Your task to perform on an android device: Search for "sony triple a" on costco.com, select the first entry, add it to the cart, then select checkout. Image 0: 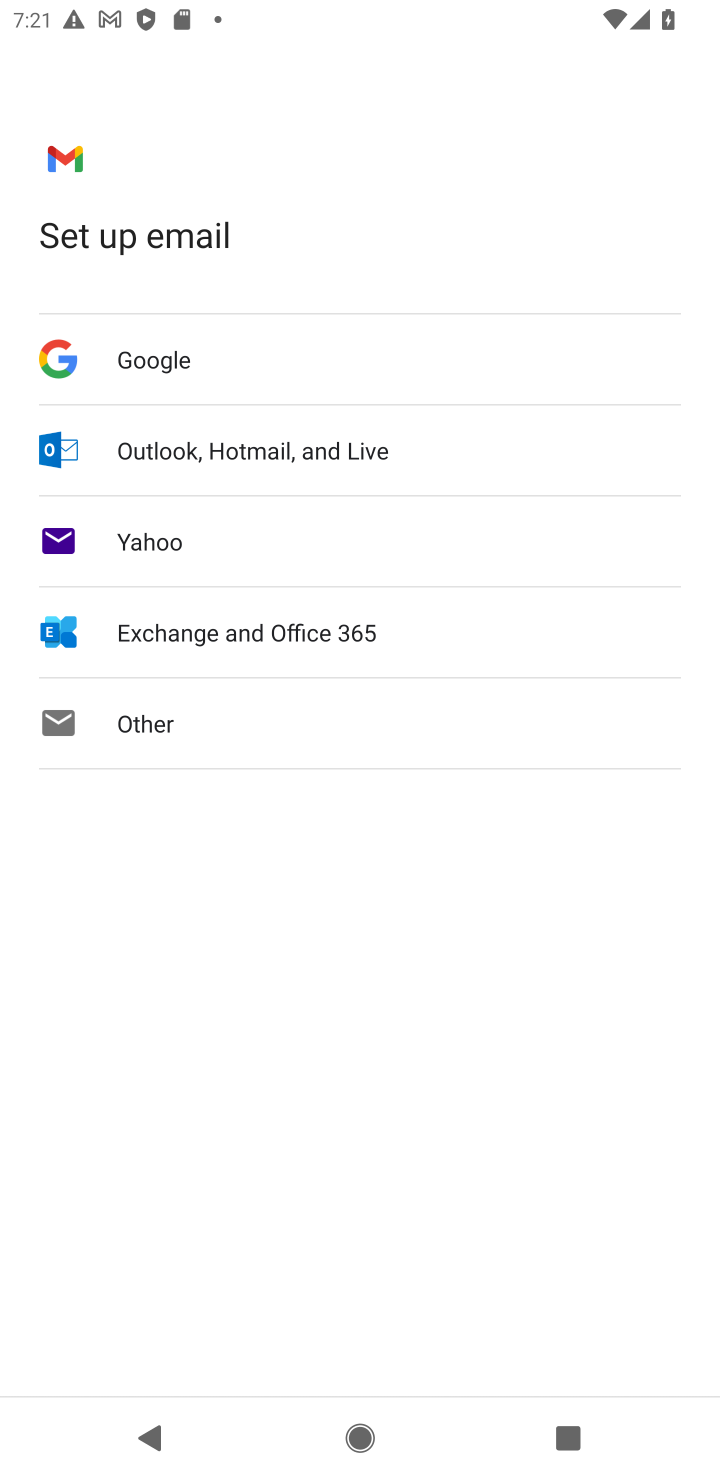
Step 0: press home button
Your task to perform on an android device: Search for "sony triple a" on costco.com, select the first entry, add it to the cart, then select checkout. Image 1: 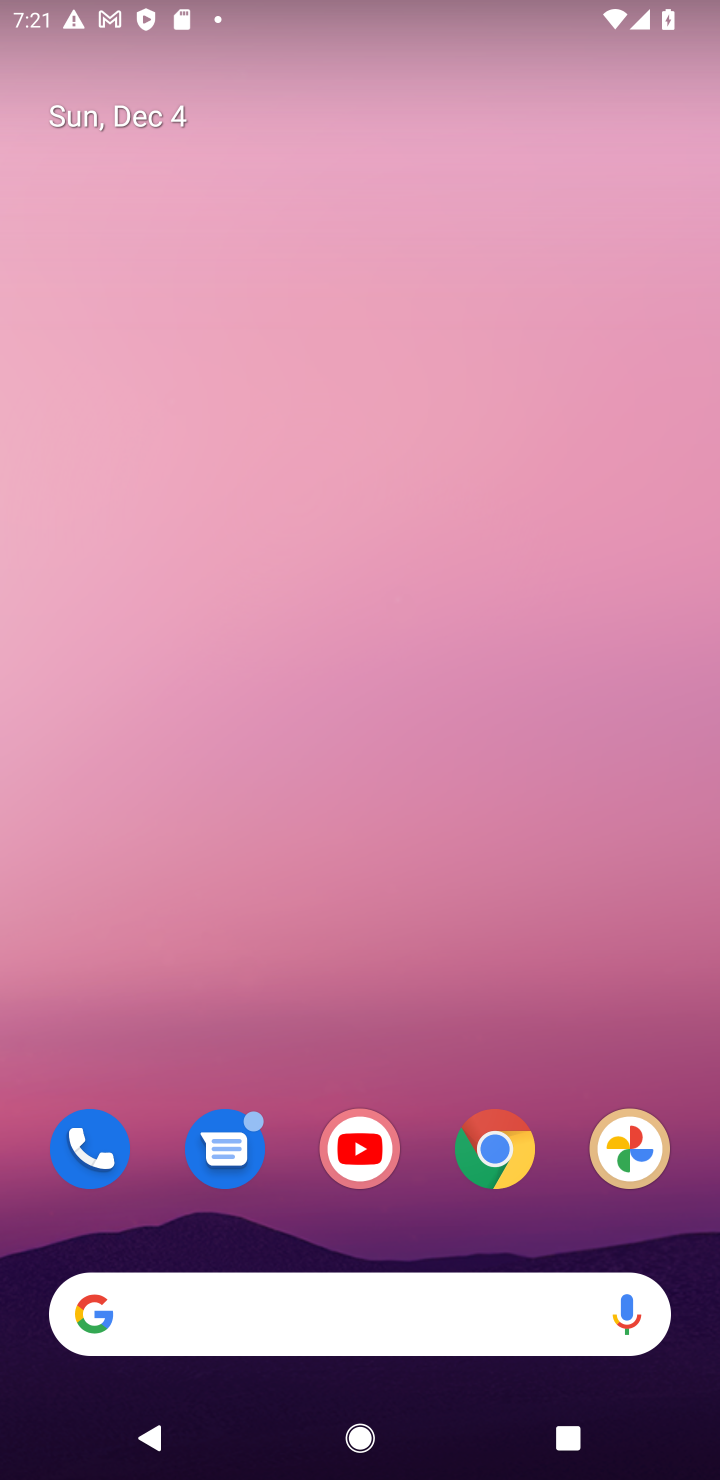
Step 1: drag from (242, 1025) to (239, 493)
Your task to perform on an android device: Search for "sony triple a" on costco.com, select the first entry, add it to the cart, then select checkout. Image 2: 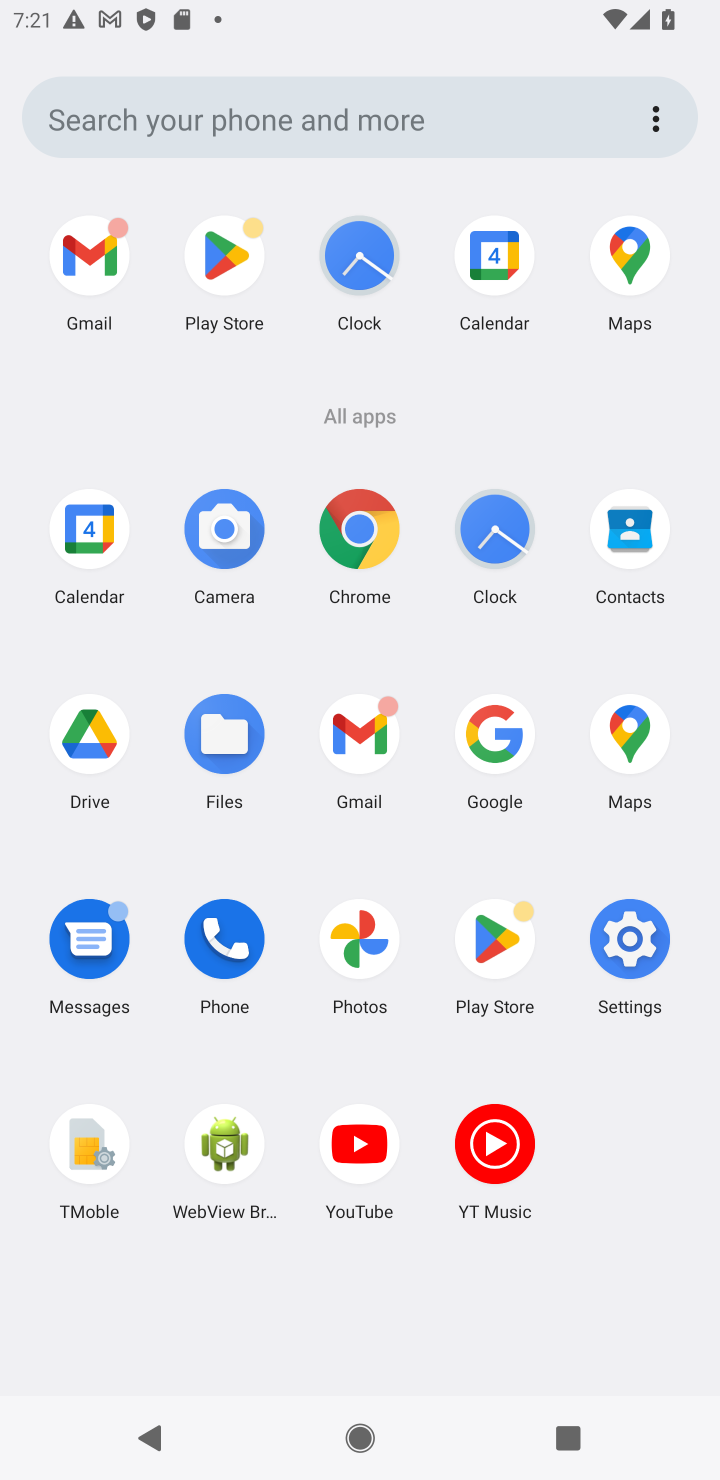
Step 2: click (490, 744)
Your task to perform on an android device: Search for "sony triple a" on costco.com, select the first entry, add it to the cart, then select checkout. Image 3: 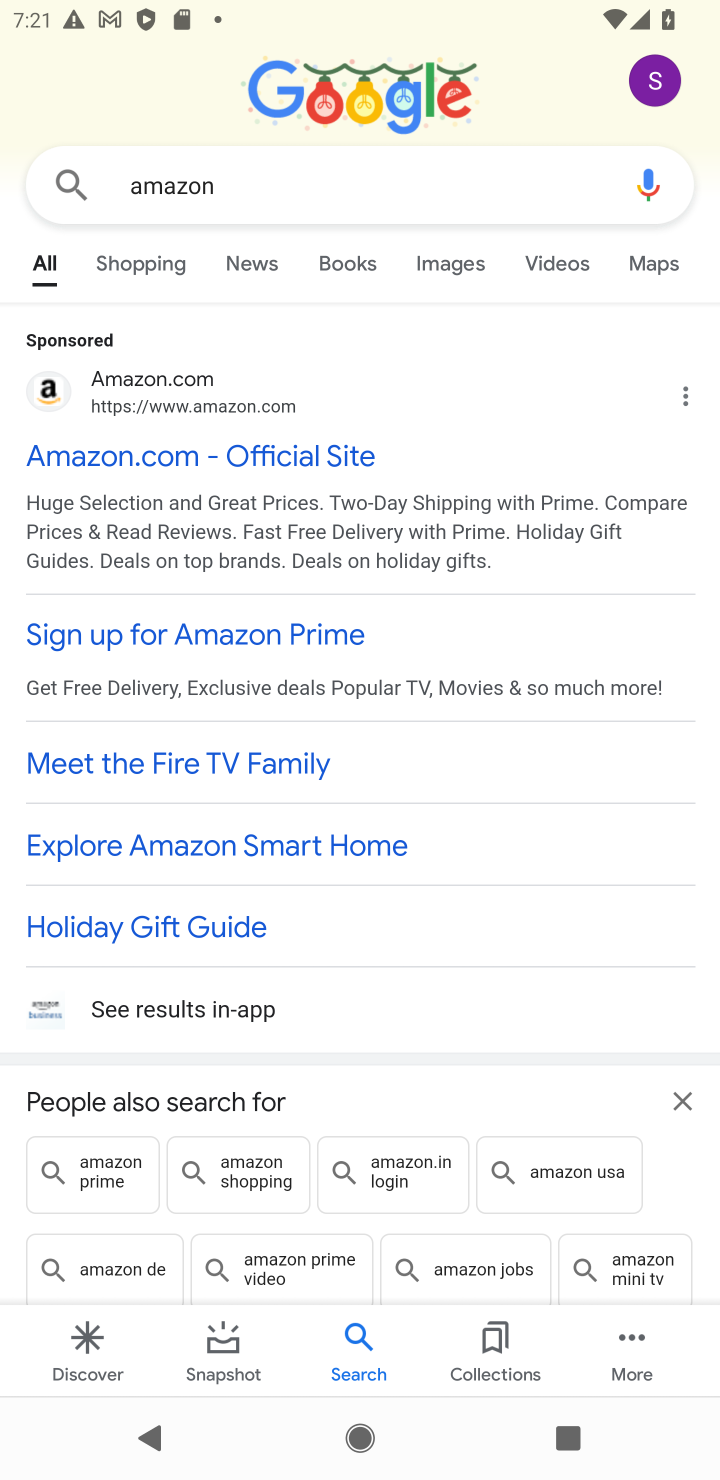
Step 3: click (192, 188)
Your task to perform on an android device: Search for "sony triple a" on costco.com, select the first entry, add it to the cart, then select checkout. Image 4: 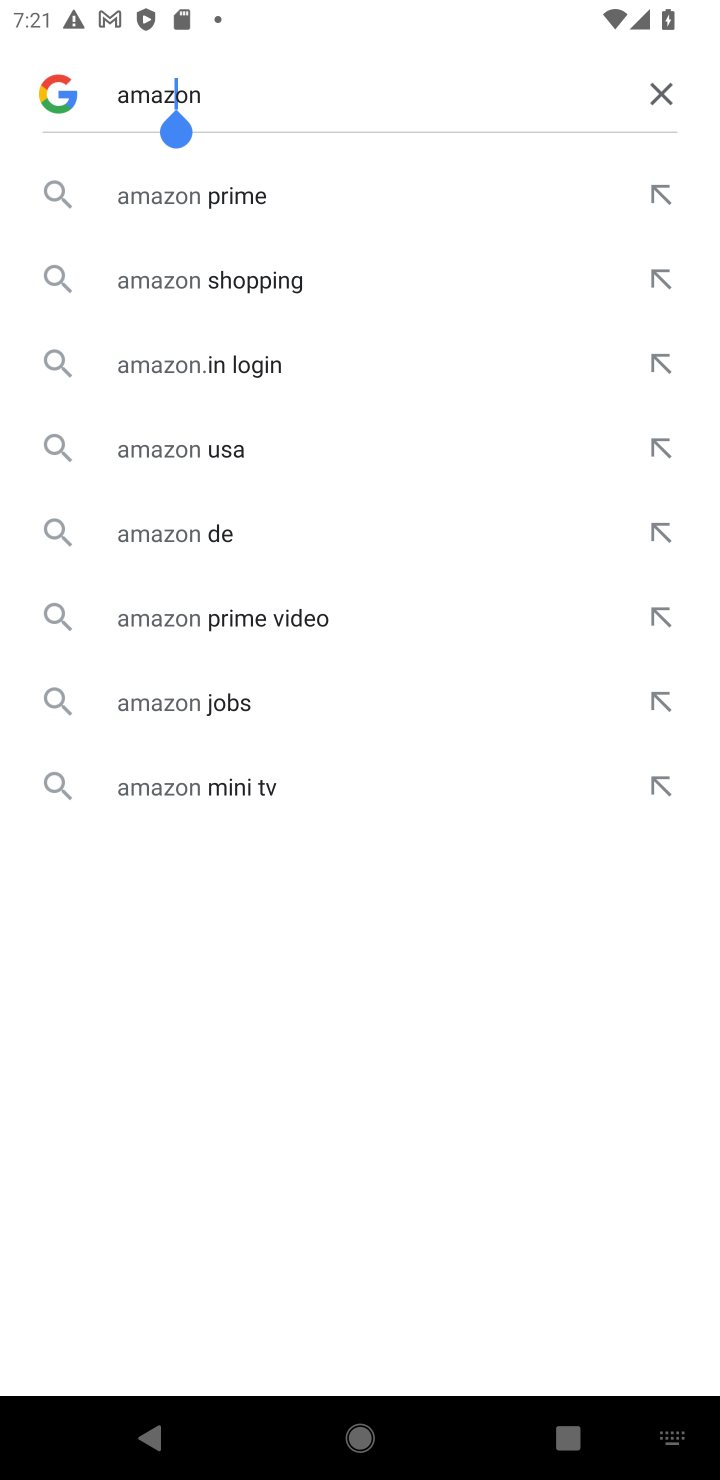
Step 4: click (676, 100)
Your task to perform on an android device: Search for "sony triple a" on costco.com, select the first entry, add it to the cart, then select checkout. Image 5: 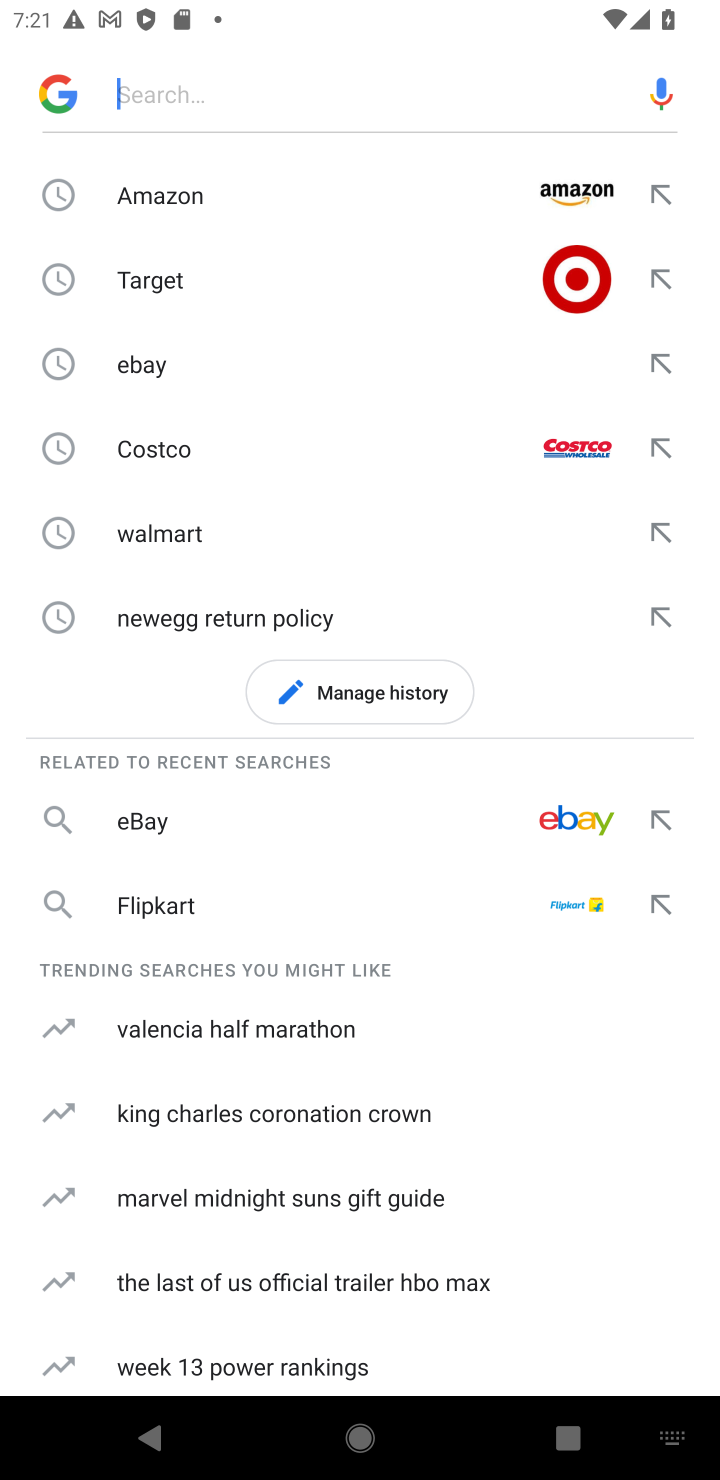
Step 5: click (148, 440)
Your task to perform on an android device: Search for "sony triple a" on costco.com, select the first entry, add it to the cart, then select checkout. Image 6: 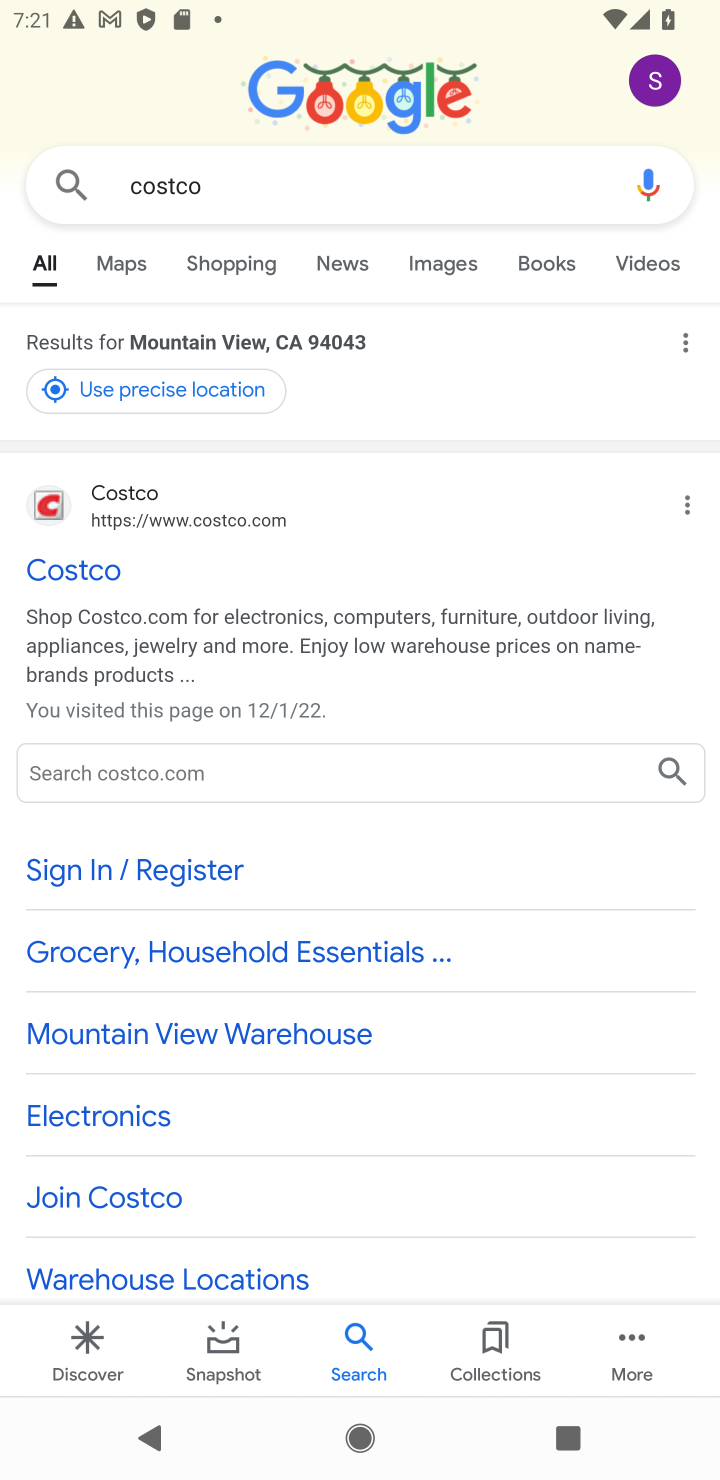
Step 6: click (220, 176)
Your task to perform on an android device: Search for "sony triple a" on costco.com, select the first entry, add it to the cart, then select checkout. Image 7: 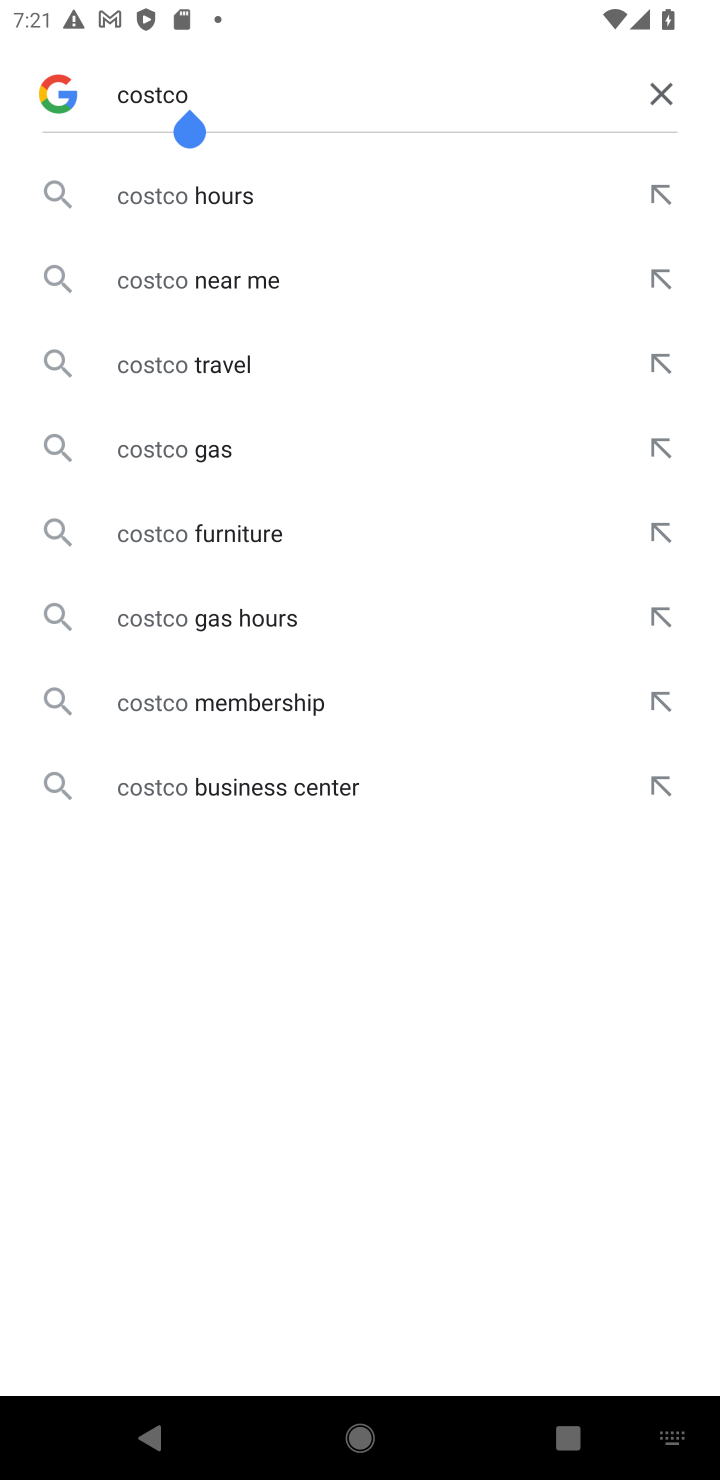
Step 7: click (651, 96)
Your task to perform on an android device: Search for "sony triple a" on costco.com, select the first entry, add it to the cart, then select checkout. Image 8: 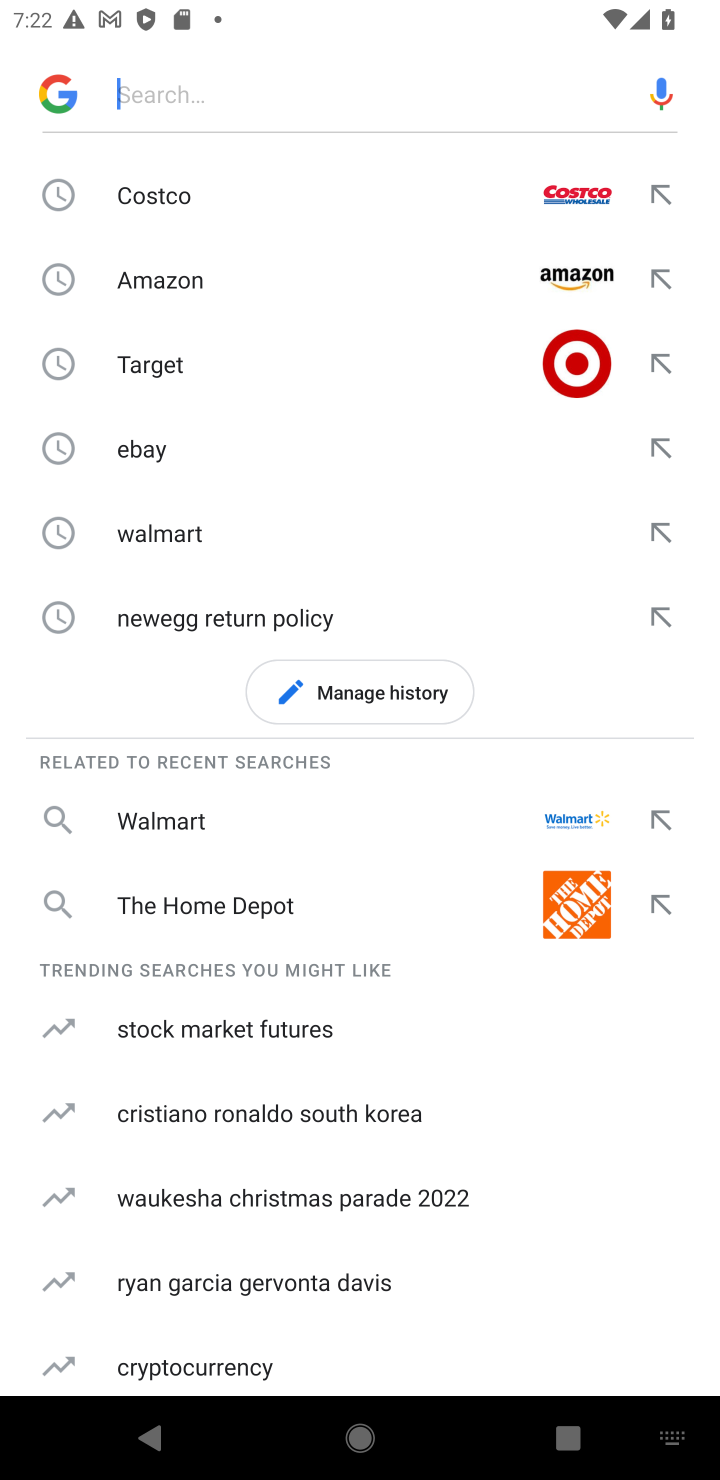
Step 8: click (158, 193)
Your task to perform on an android device: Search for "sony triple a" on costco.com, select the first entry, add it to the cart, then select checkout. Image 9: 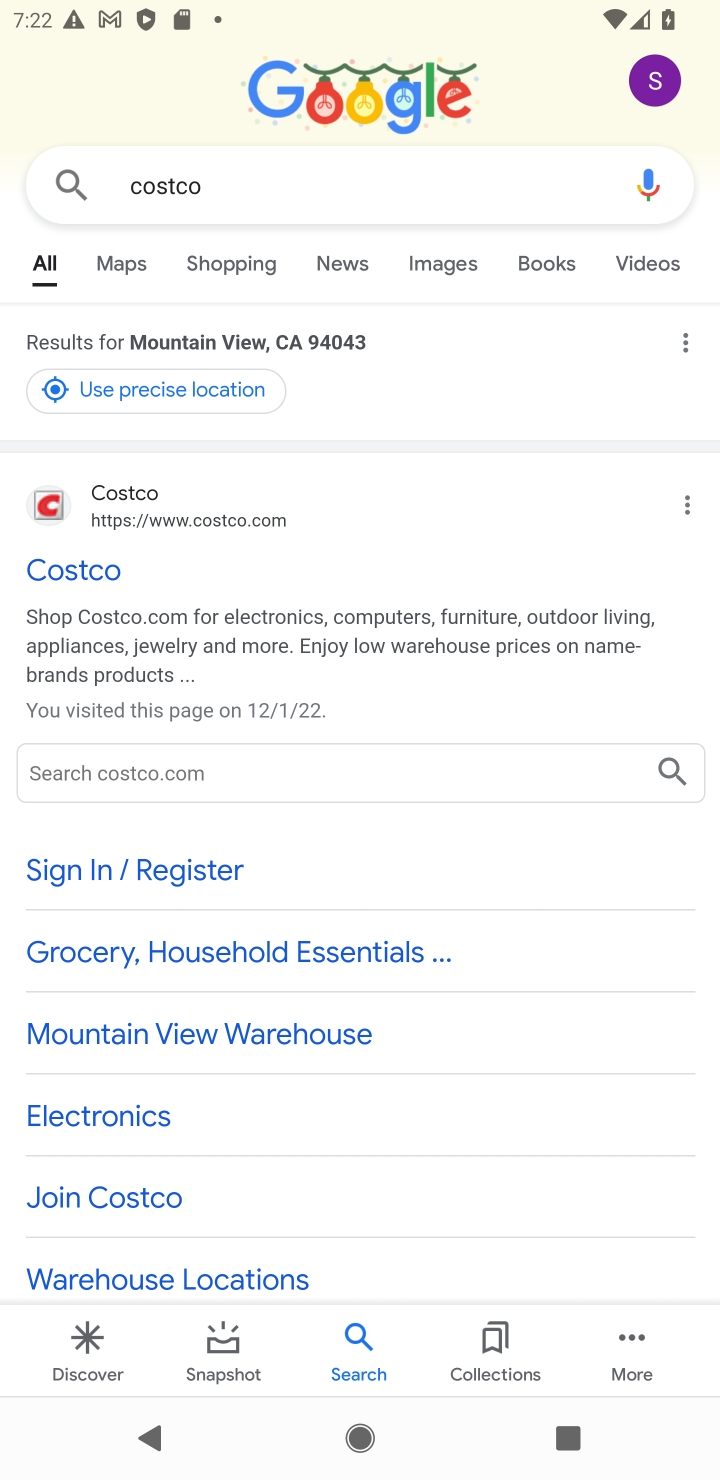
Step 9: click (100, 572)
Your task to perform on an android device: Search for "sony triple a" on costco.com, select the first entry, add it to the cart, then select checkout. Image 10: 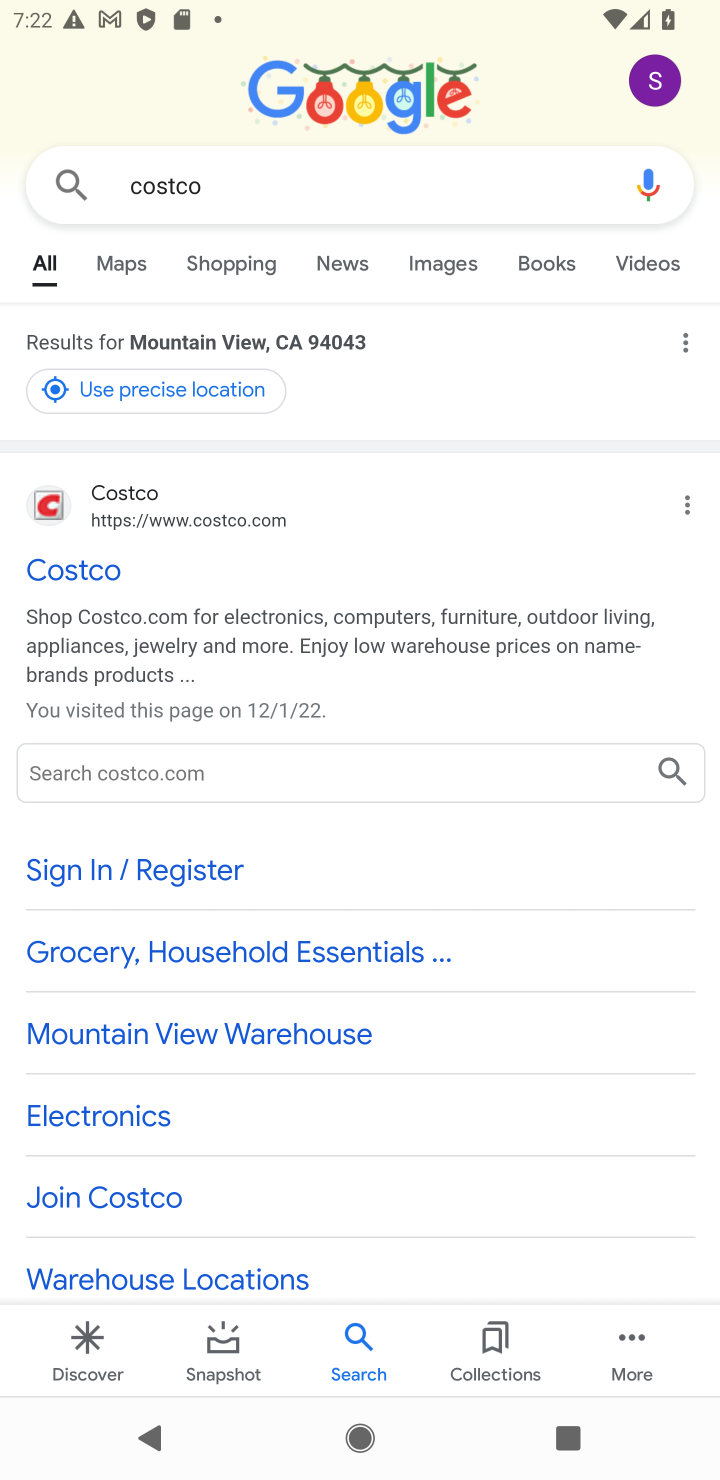
Step 10: click (73, 562)
Your task to perform on an android device: Search for "sony triple a" on costco.com, select the first entry, add it to the cart, then select checkout. Image 11: 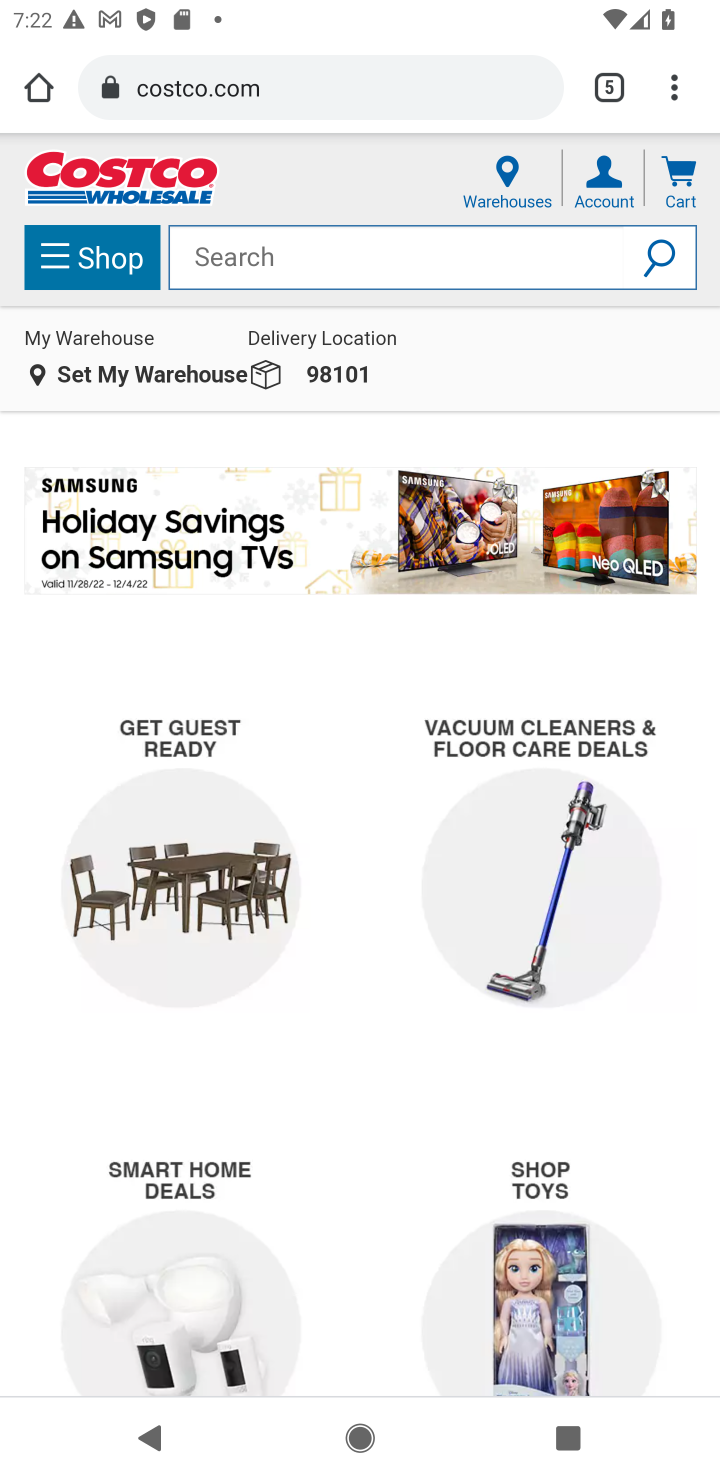
Step 11: click (211, 244)
Your task to perform on an android device: Search for "sony triple a" on costco.com, select the first entry, add it to the cart, then select checkout. Image 12: 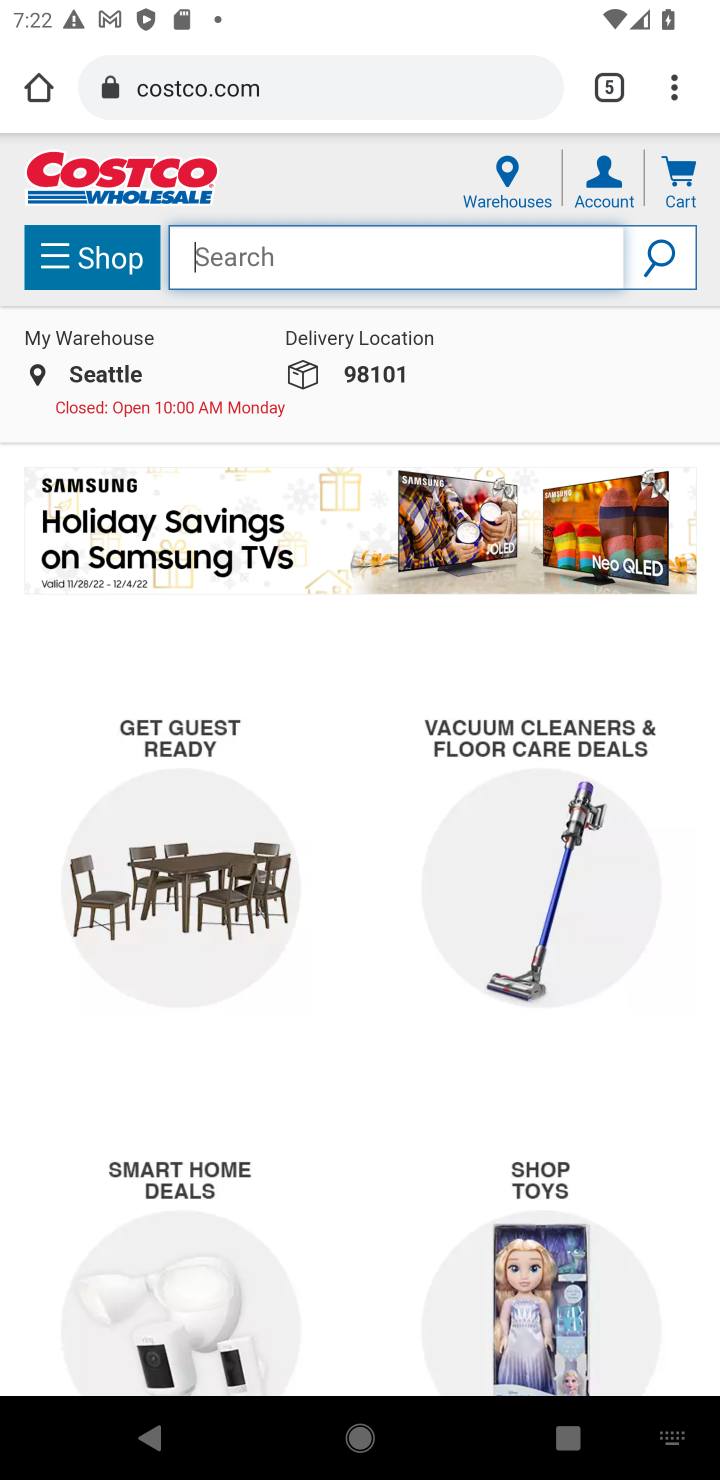
Step 12: type "sony triple a"
Your task to perform on an android device: Search for "sony triple a" on costco.com, select the first entry, add it to the cart, then select checkout. Image 13: 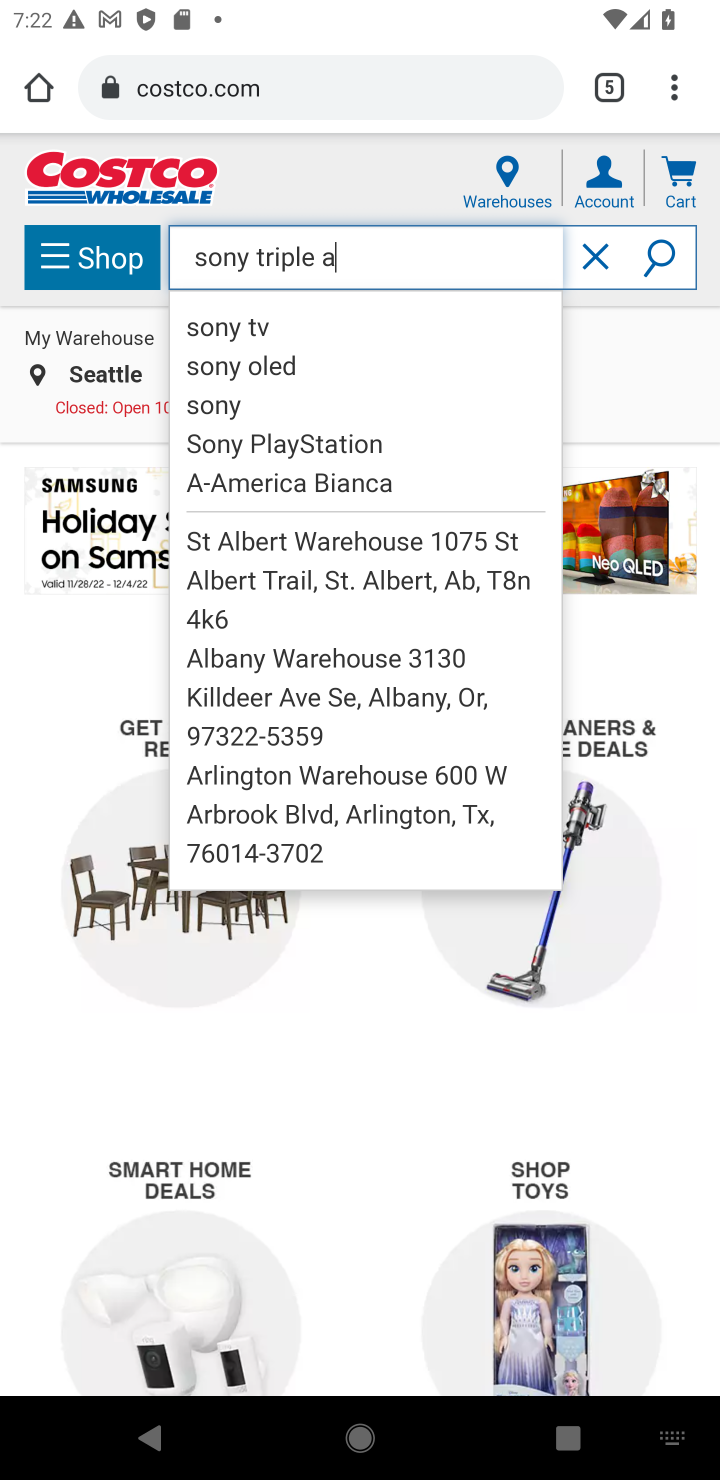
Step 13: click (646, 248)
Your task to perform on an android device: Search for "sony triple a" on costco.com, select the first entry, add it to the cart, then select checkout. Image 14: 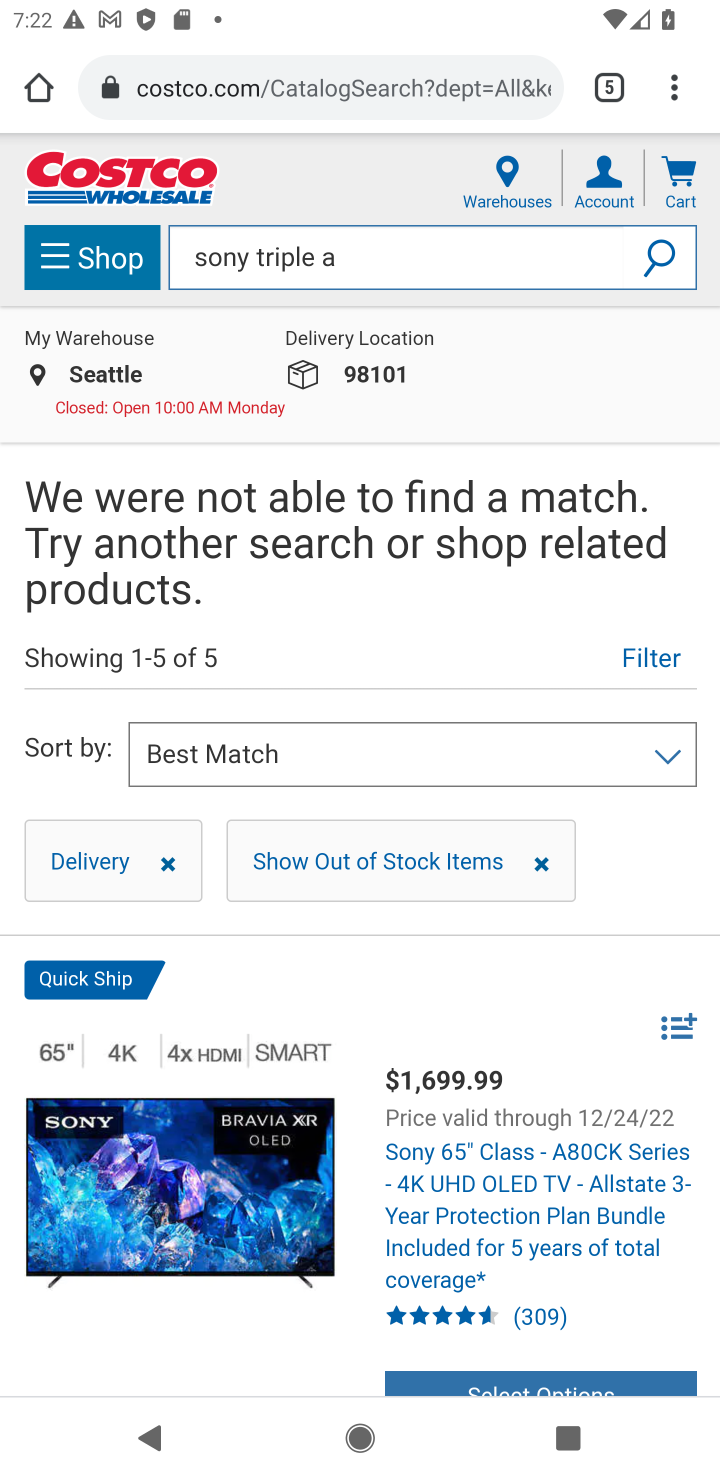
Step 14: drag from (485, 1273) to (487, 695)
Your task to perform on an android device: Search for "sony triple a" on costco.com, select the first entry, add it to the cart, then select checkout. Image 15: 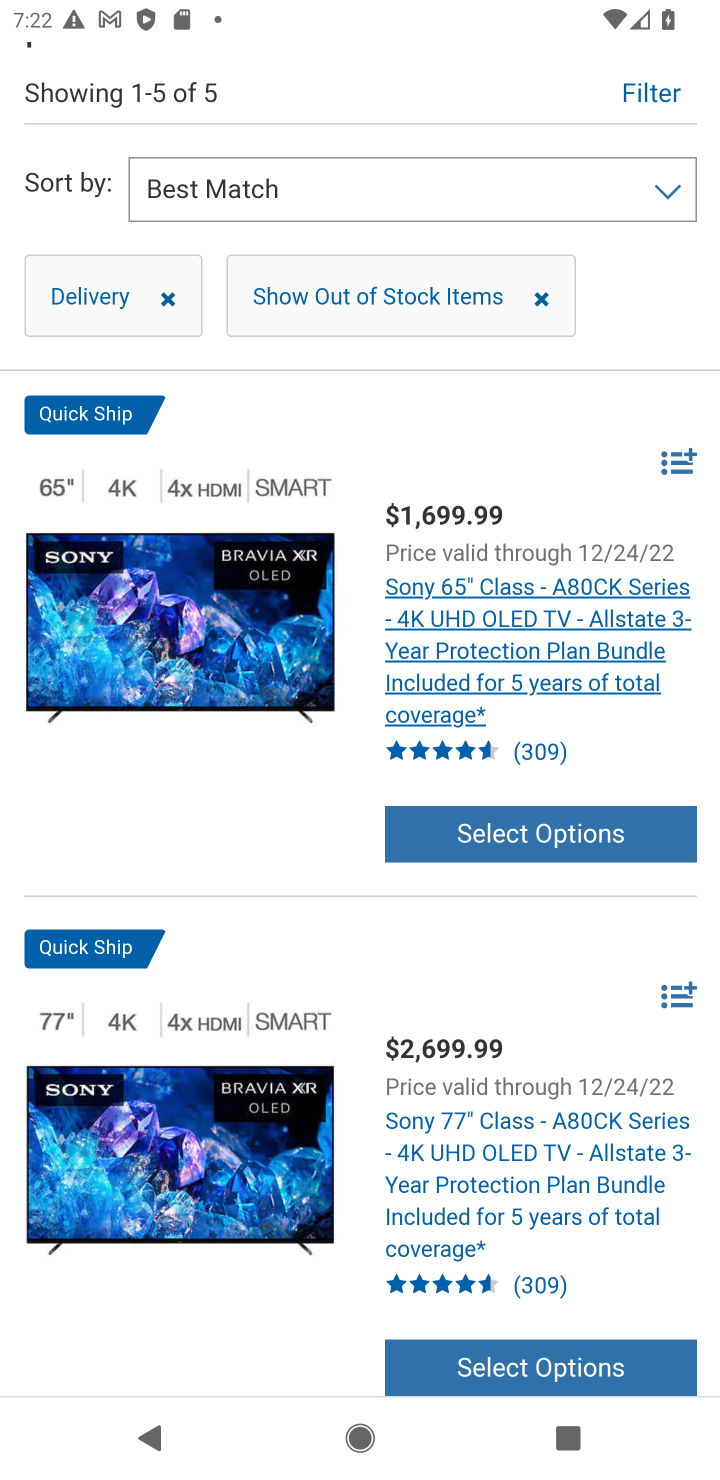
Step 15: click (482, 832)
Your task to perform on an android device: Search for "sony triple a" on costco.com, select the first entry, add it to the cart, then select checkout. Image 16: 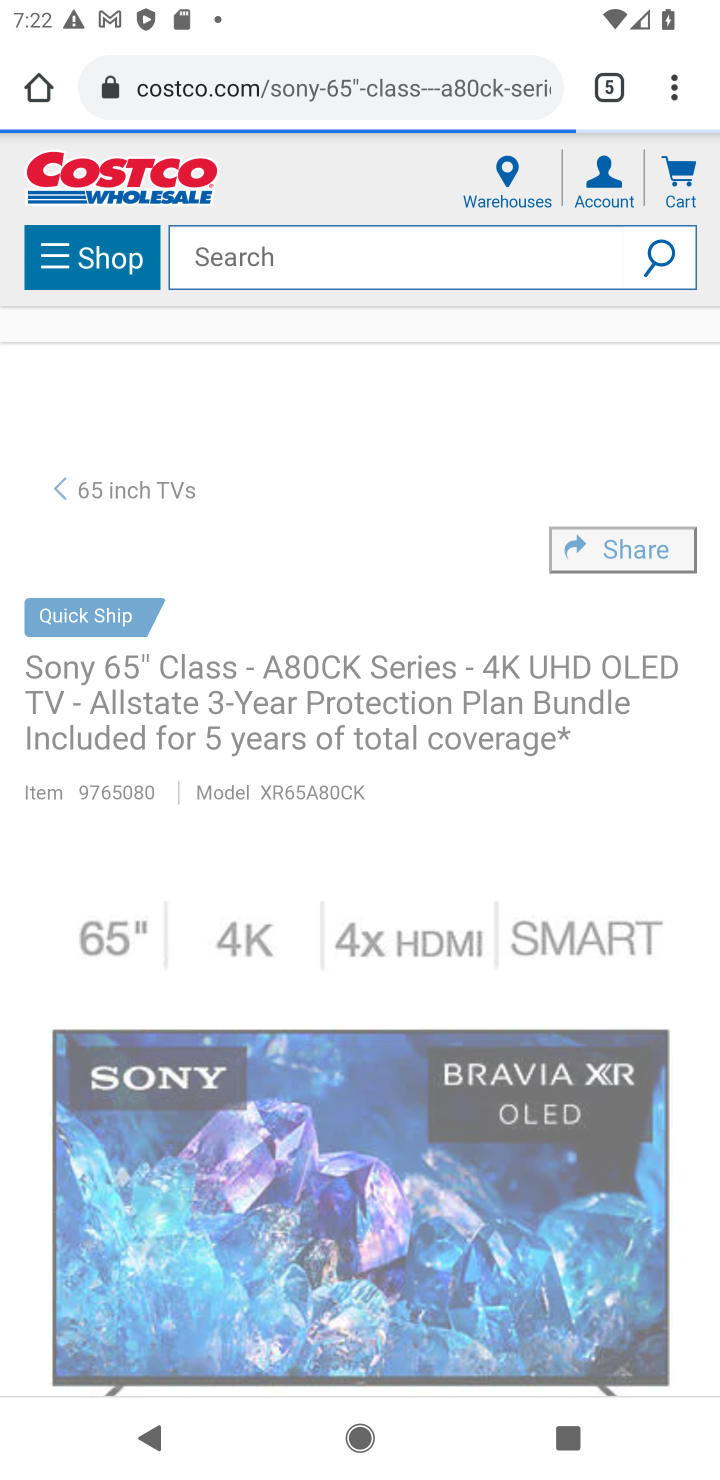
Step 16: drag from (381, 1296) to (349, 651)
Your task to perform on an android device: Search for "sony triple a" on costco.com, select the first entry, add it to the cart, then select checkout. Image 17: 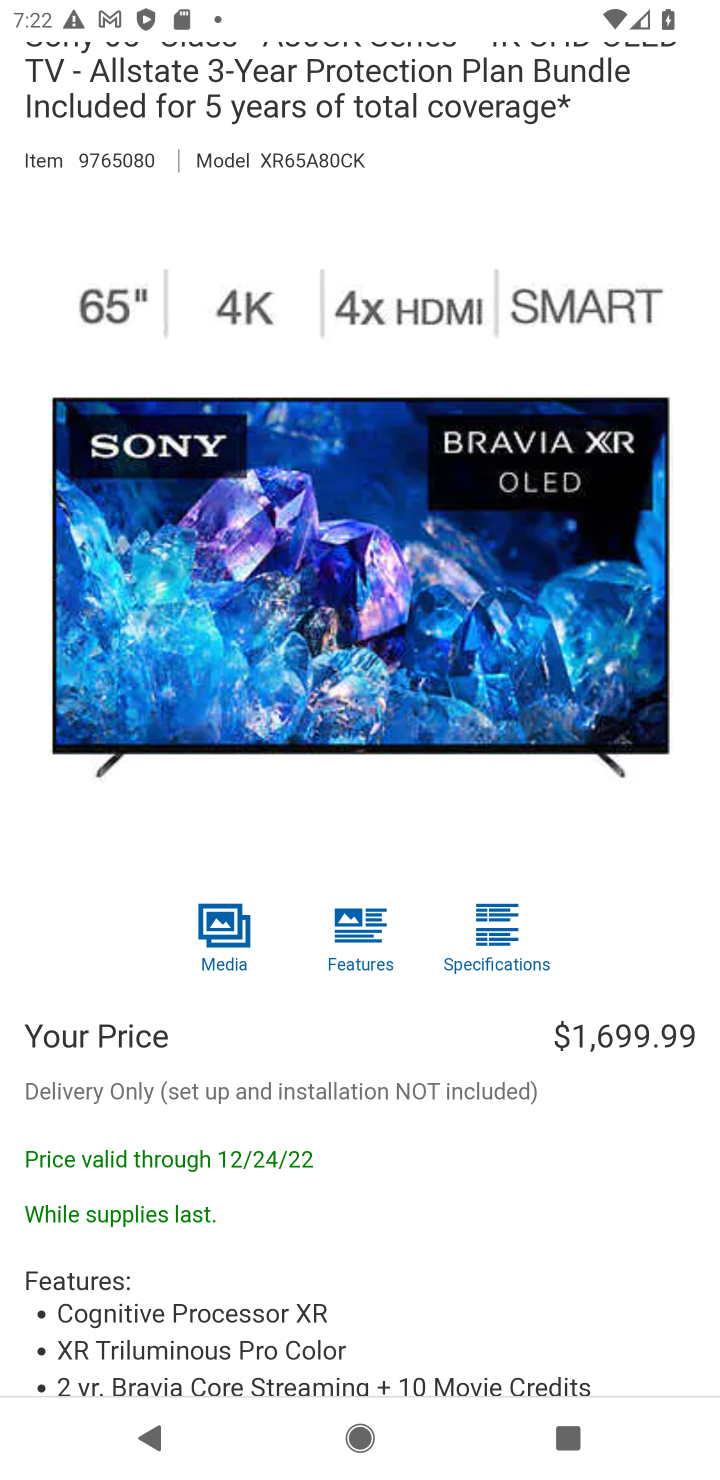
Step 17: drag from (355, 910) to (365, 415)
Your task to perform on an android device: Search for "sony triple a" on costco.com, select the first entry, add it to the cart, then select checkout. Image 18: 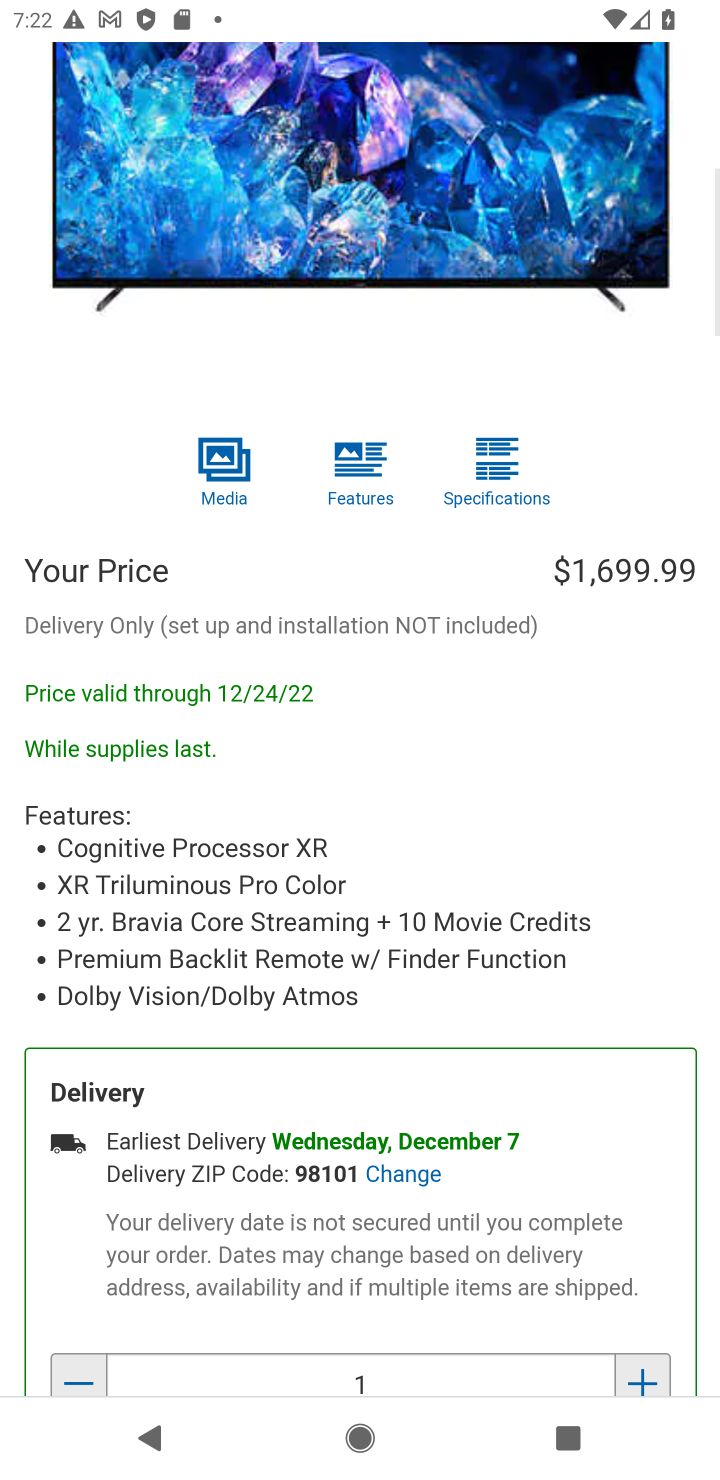
Step 18: drag from (295, 1073) to (349, 515)
Your task to perform on an android device: Search for "sony triple a" on costco.com, select the first entry, add it to the cart, then select checkout. Image 19: 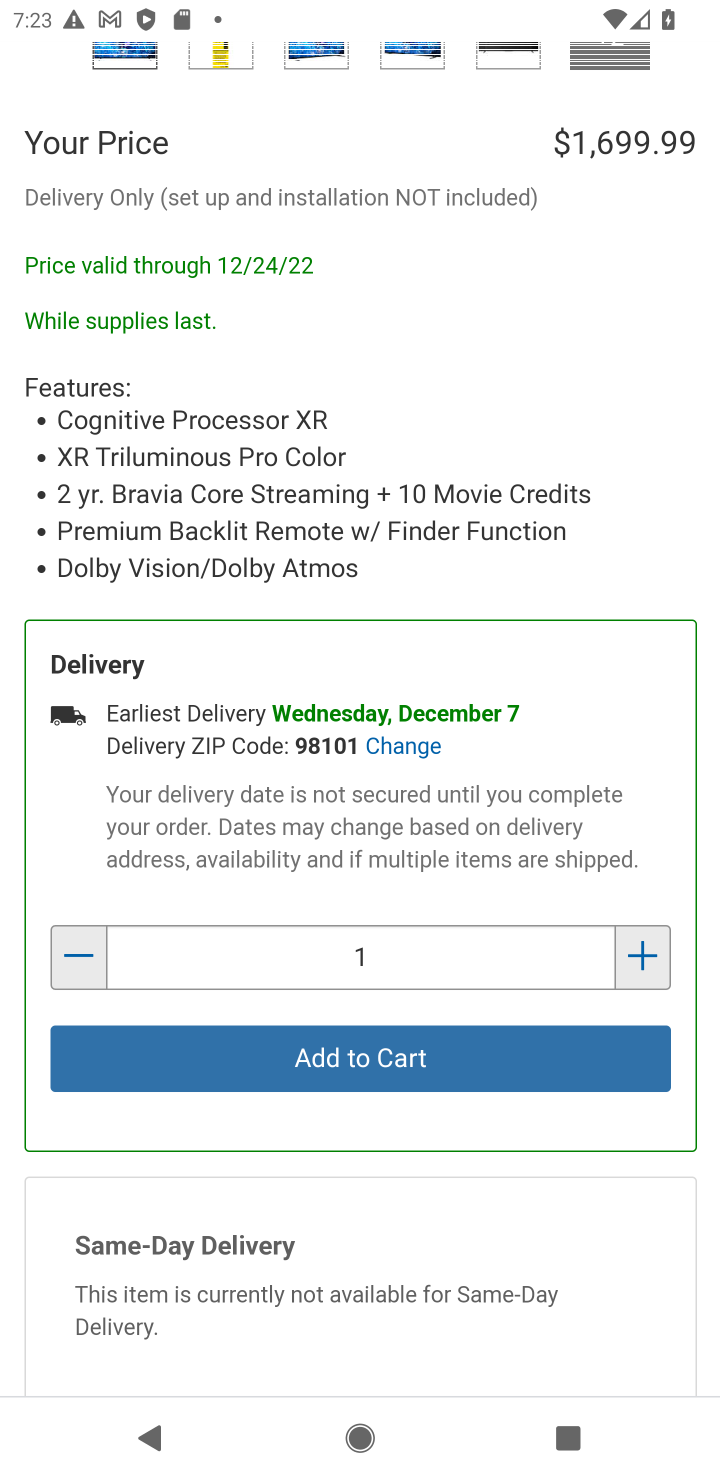
Step 19: click (349, 1070)
Your task to perform on an android device: Search for "sony triple a" on costco.com, select the first entry, add it to the cart, then select checkout. Image 20: 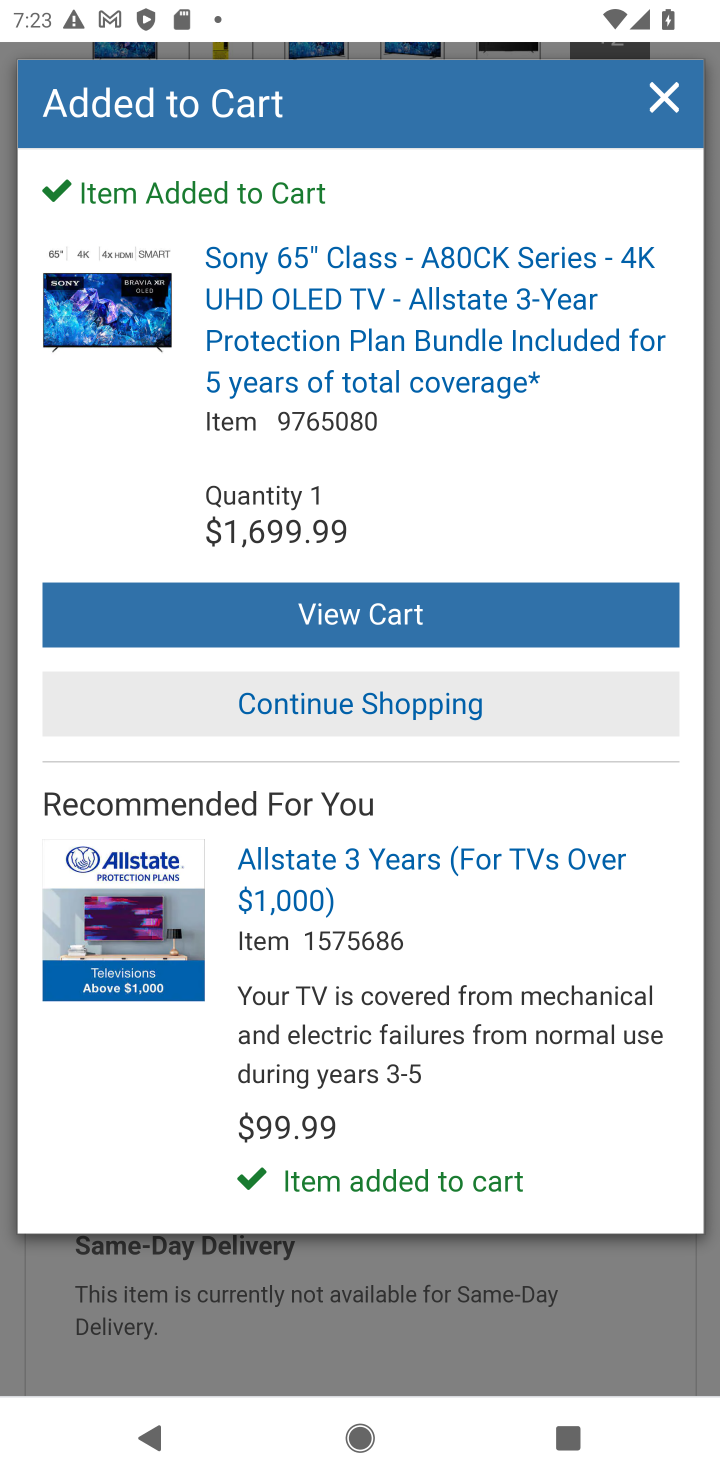
Step 20: click (375, 621)
Your task to perform on an android device: Search for "sony triple a" on costco.com, select the first entry, add it to the cart, then select checkout. Image 21: 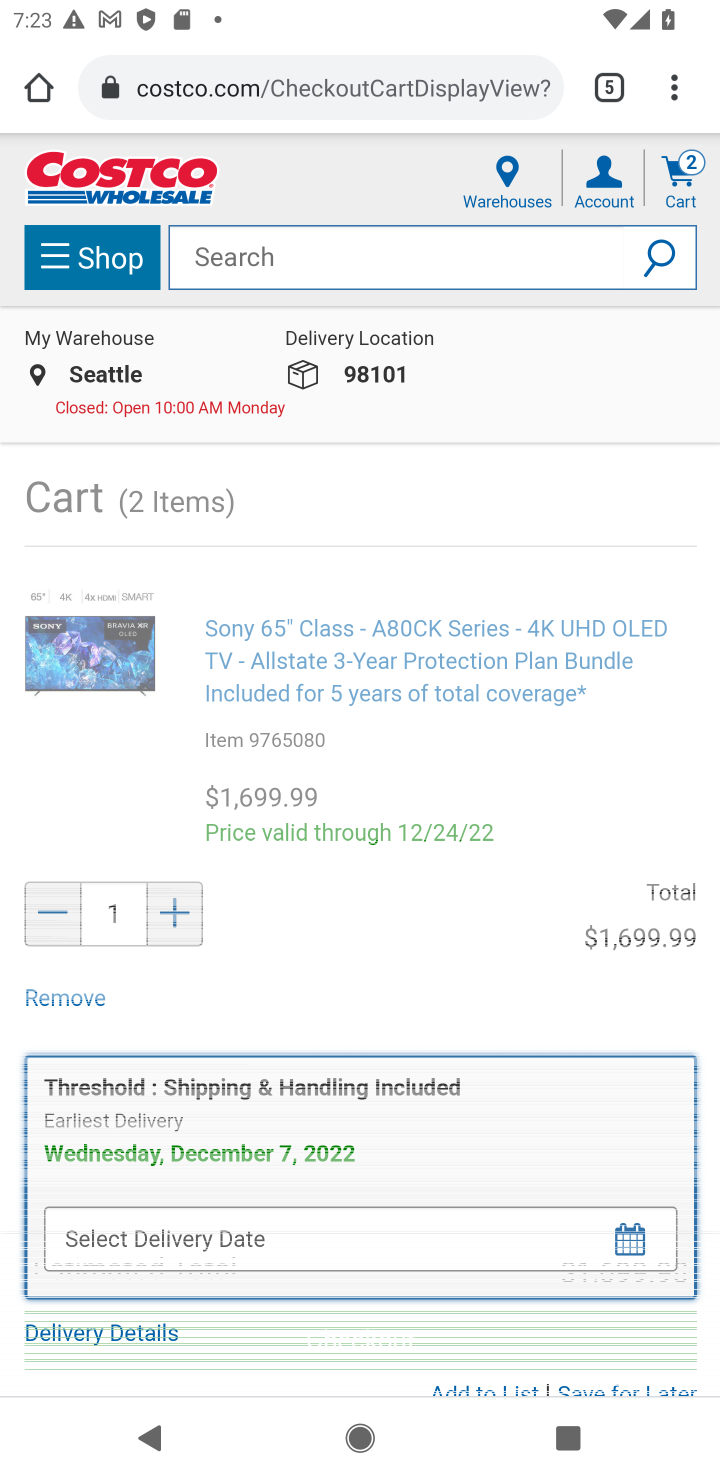
Step 21: drag from (420, 1348) to (511, 663)
Your task to perform on an android device: Search for "sony triple a" on costco.com, select the first entry, add it to the cart, then select checkout. Image 22: 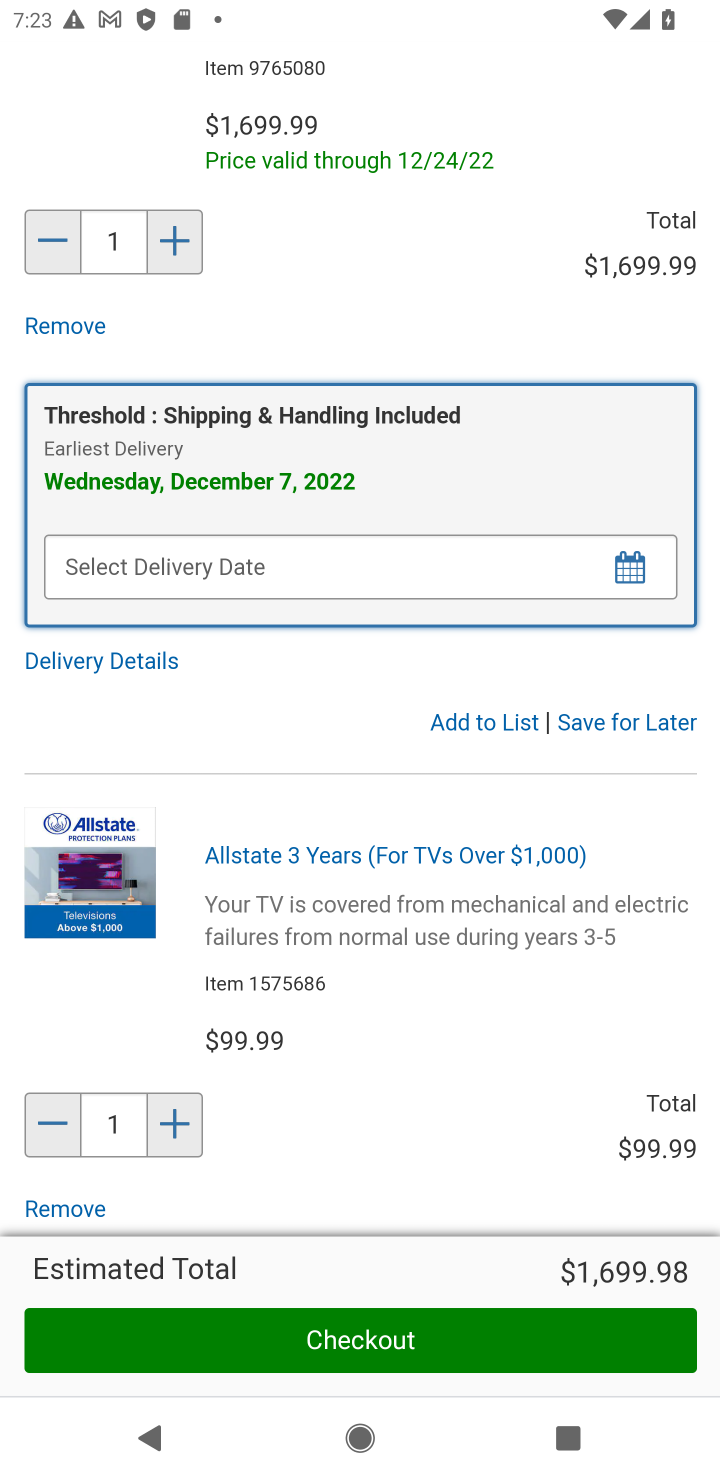
Step 22: click (414, 1363)
Your task to perform on an android device: Search for "sony triple a" on costco.com, select the first entry, add it to the cart, then select checkout. Image 23: 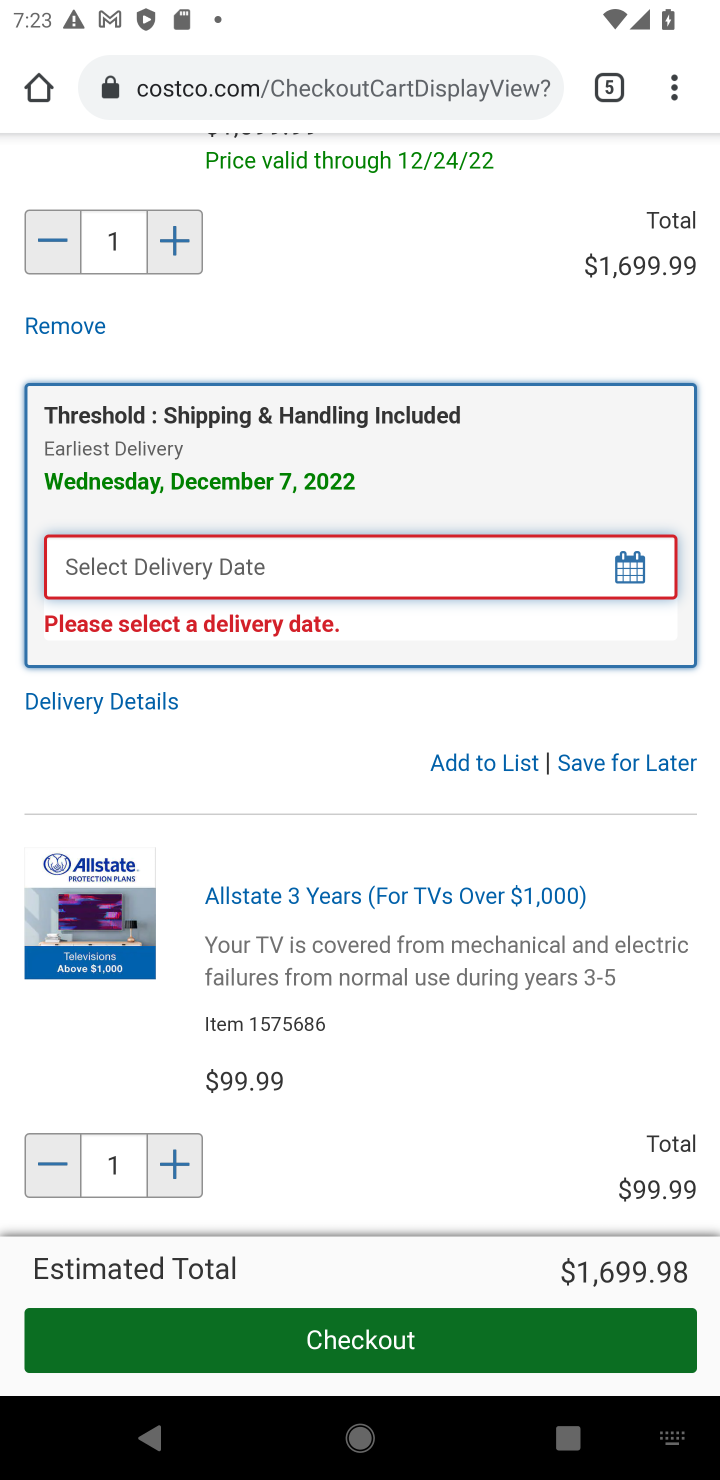
Step 23: click (367, 1345)
Your task to perform on an android device: Search for "sony triple a" on costco.com, select the first entry, add it to the cart, then select checkout. Image 24: 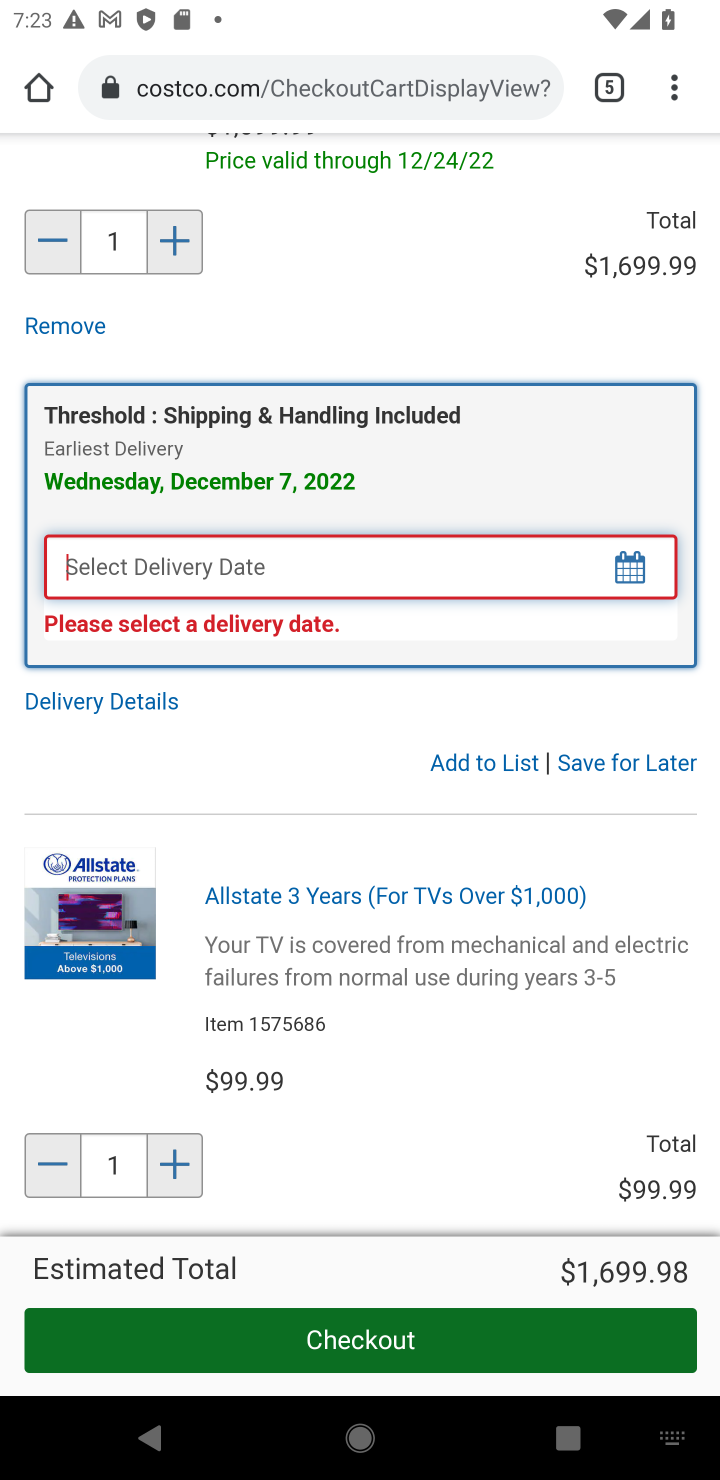
Step 24: task complete